Your task to perform on an android device: see sites visited before in the chrome app Image 0: 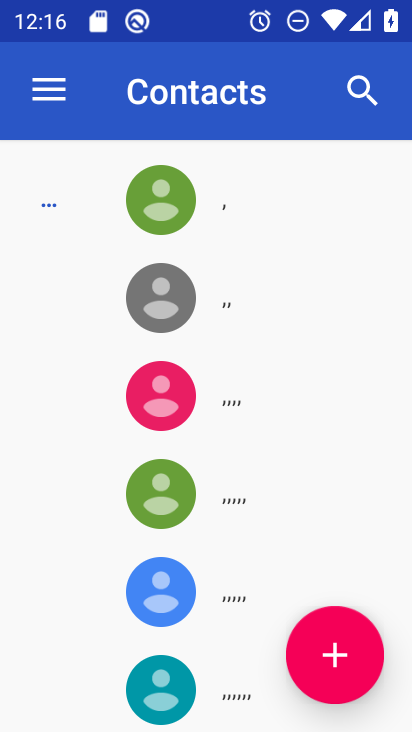
Step 0: press home button
Your task to perform on an android device: see sites visited before in the chrome app Image 1: 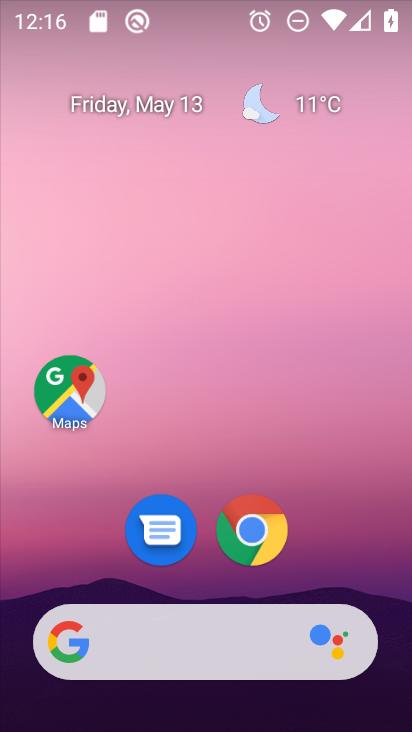
Step 1: click (259, 546)
Your task to perform on an android device: see sites visited before in the chrome app Image 2: 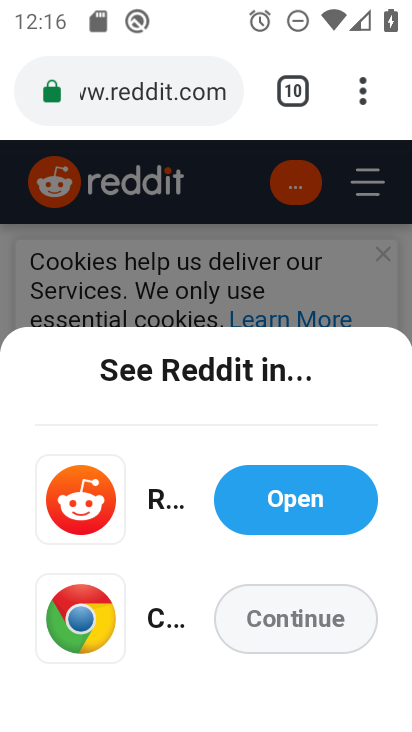
Step 2: task complete